Your task to perform on an android device: Open Yahoo.com Image 0: 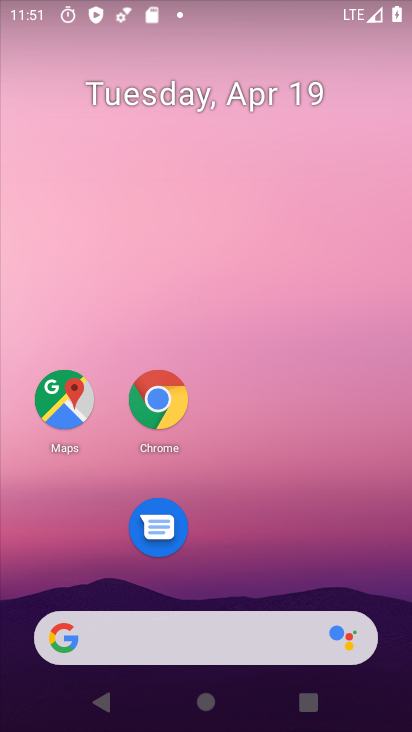
Step 0: drag from (250, 676) to (213, 269)
Your task to perform on an android device: Open Yahoo.com Image 1: 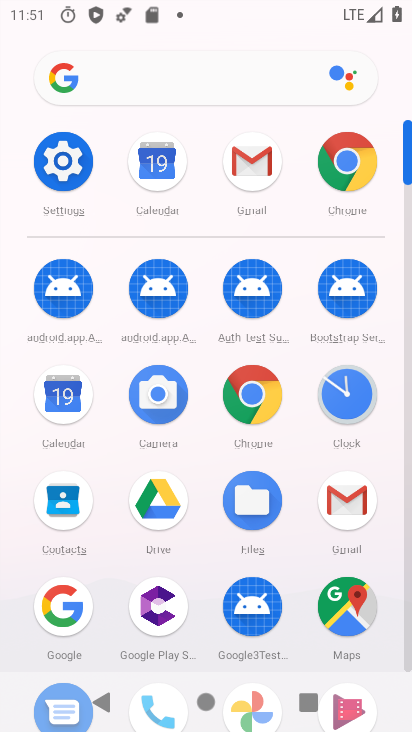
Step 1: click (250, 380)
Your task to perform on an android device: Open Yahoo.com Image 2: 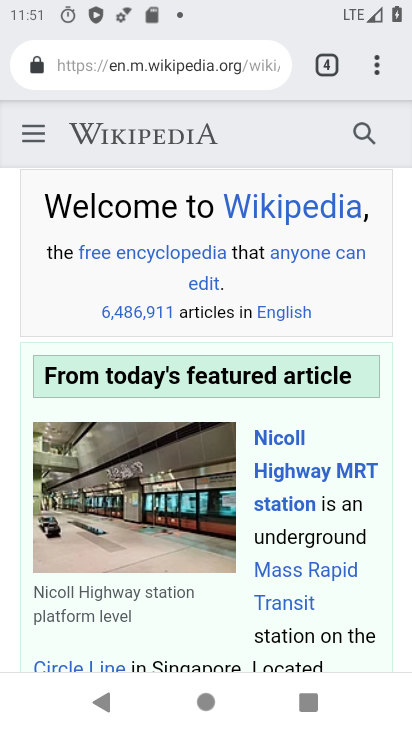
Step 2: click (369, 67)
Your task to perform on an android device: Open Yahoo.com Image 3: 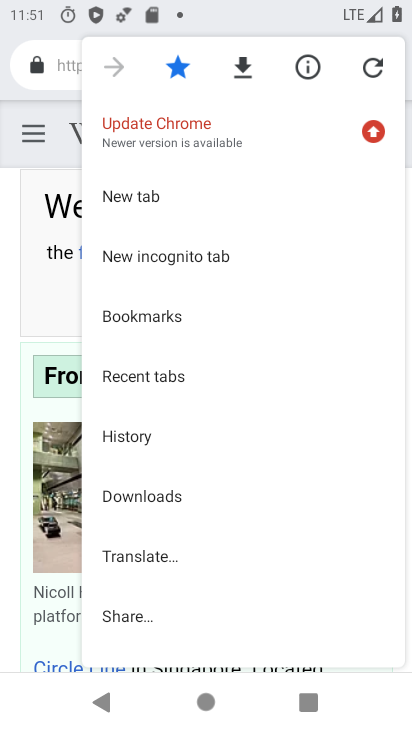
Step 3: drag from (167, 487) to (210, 218)
Your task to perform on an android device: Open Yahoo.com Image 4: 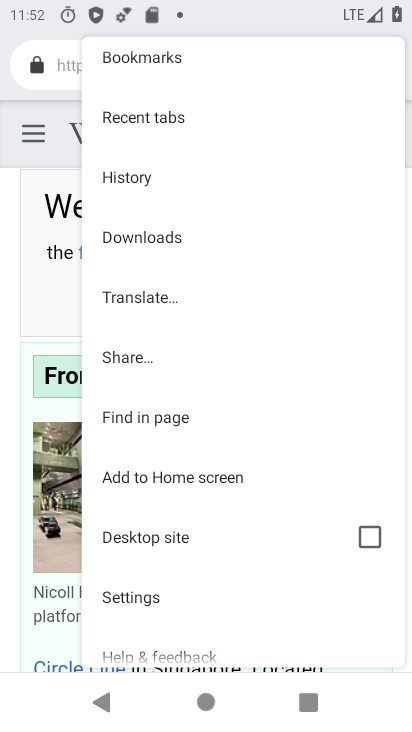
Step 4: drag from (214, 199) to (212, 287)
Your task to perform on an android device: Open Yahoo.com Image 5: 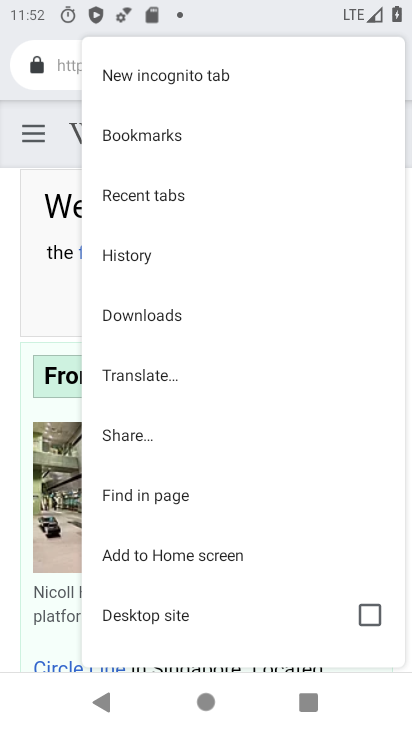
Step 5: drag from (162, 133) to (158, 212)
Your task to perform on an android device: Open Yahoo.com Image 6: 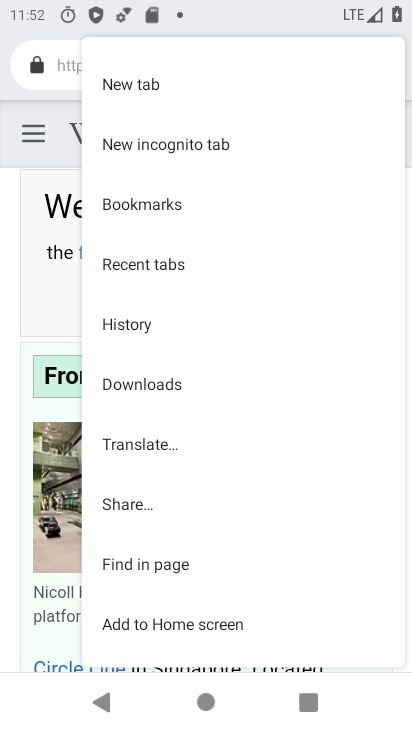
Step 6: click (162, 87)
Your task to perform on an android device: Open Yahoo.com Image 7: 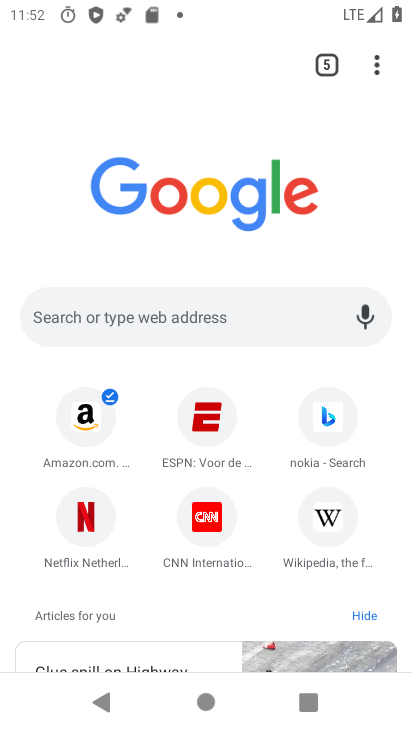
Step 7: click (180, 317)
Your task to perform on an android device: Open Yahoo.com Image 8: 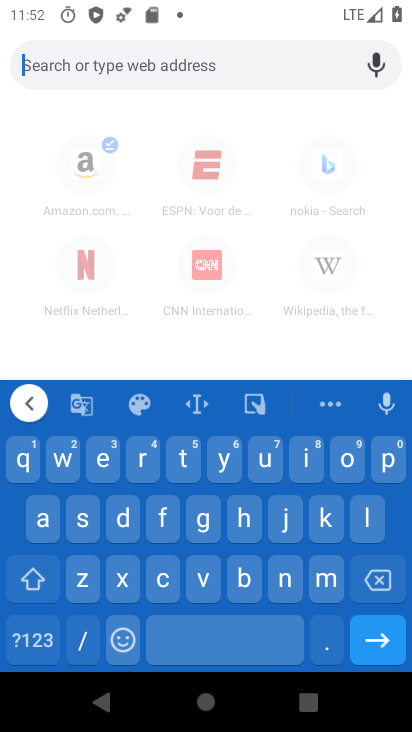
Step 8: click (218, 473)
Your task to perform on an android device: Open Yahoo.com Image 9: 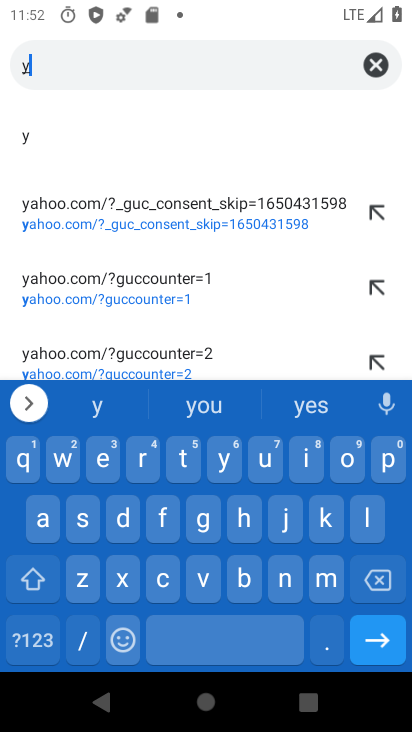
Step 9: click (101, 215)
Your task to perform on an android device: Open Yahoo.com Image 10: 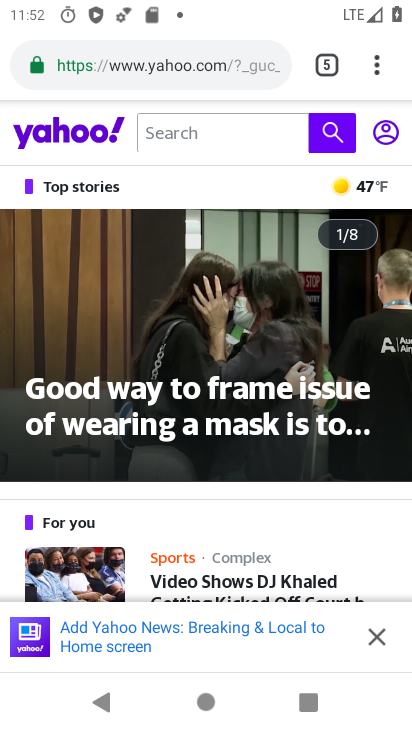
Step 10: task complete